Your task to perform on an android device: turn off javascript in the chrome app Image 0: 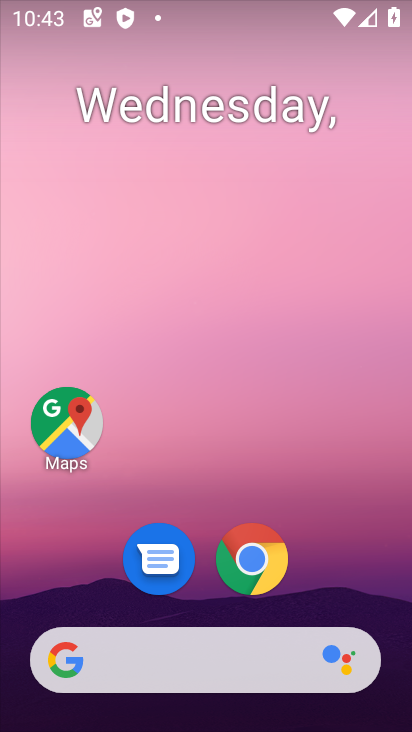
Step 0: click (251, 557)
Your task to perform on an android device: turn off javascript in the chrome app Image 1: 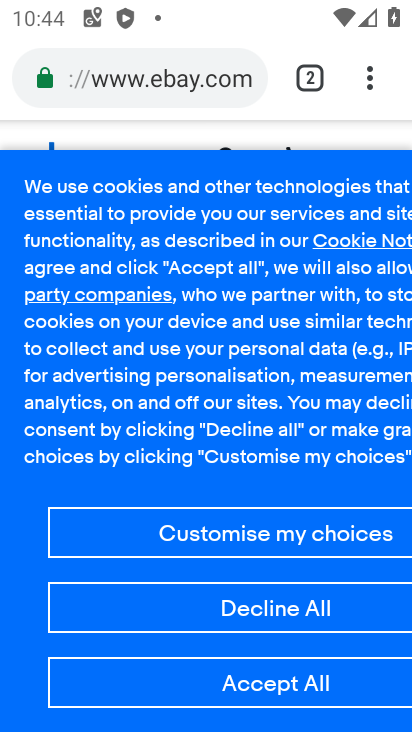
Step 1: click (370, 76)
Your task to perform on an android device: turn off javascript in the chrome app Image 2: 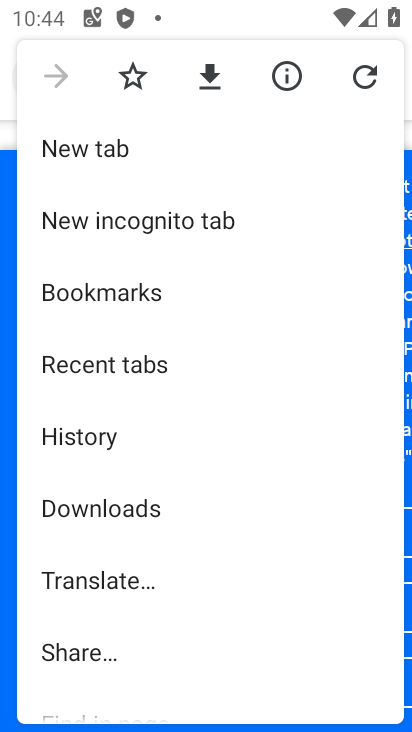
Step 2: drag from (123, 620) to (167, 530)
Your task to perform on an android device: turn off javascript in the chrome app Image 3: 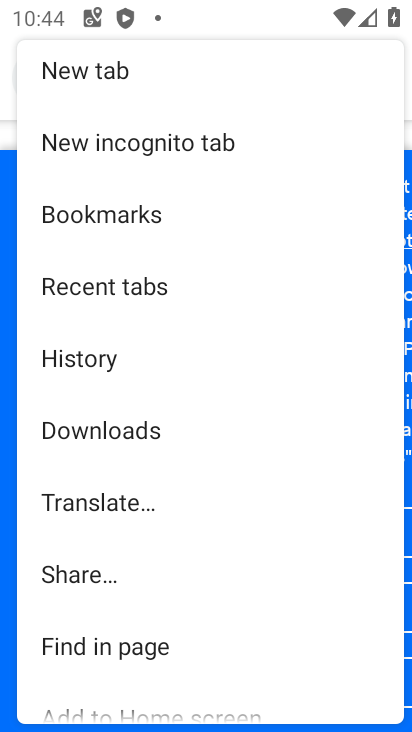
Step 3: drag from (105, 612) to (156, 539)
Your task to perform on an android device: turn off javascript in the chrome app Image 4: 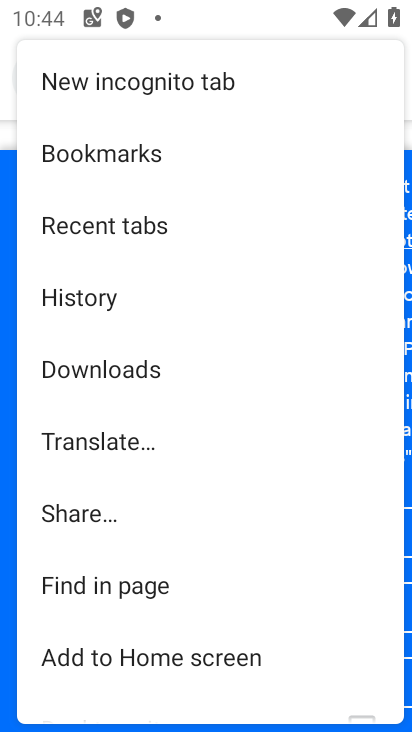
Step 4: drag from (120, 623) to (149, 547)
Your task to perform on an android device: turn off javascript in the chrome app Image 5: 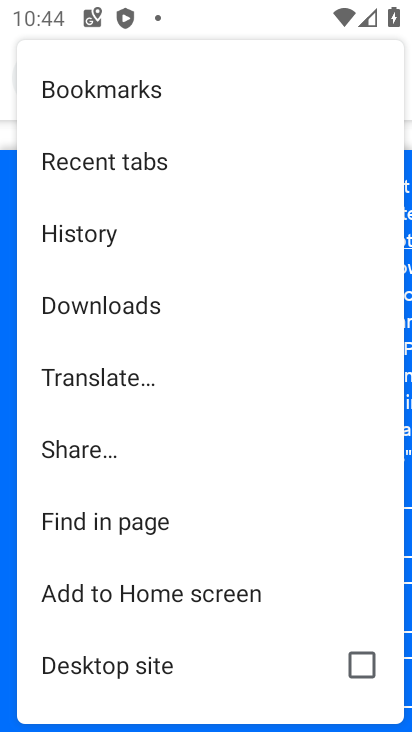
Step 5: drag from (111, 644) to (167, 534)
Your task to perform on an android device: turn off javascript in the chrome app Image 6: 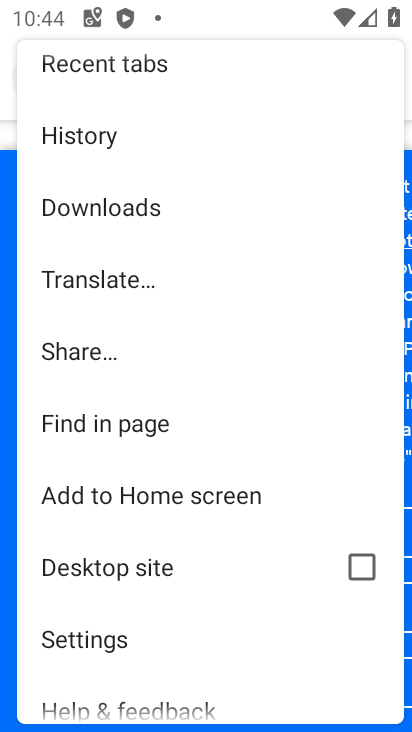
Step 6: drag from (90, 618) to (164, 496)
Your task to perform on an android device: turn off javascript in the chrome app Image 7: 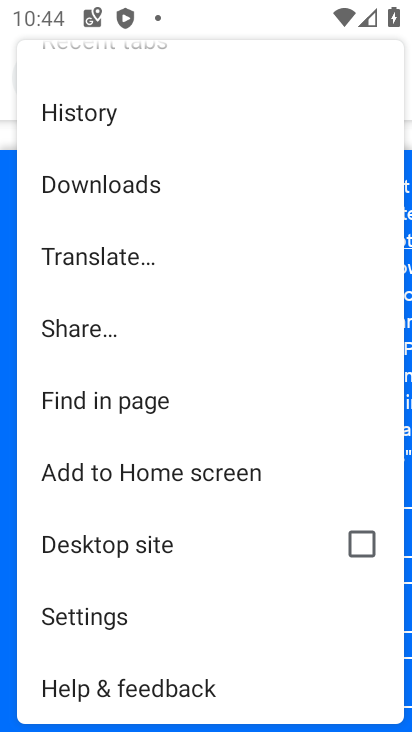
Step 7: click (91, 620)
Your task to perform on an android device: turn off javascript in the chrome app Image 8: 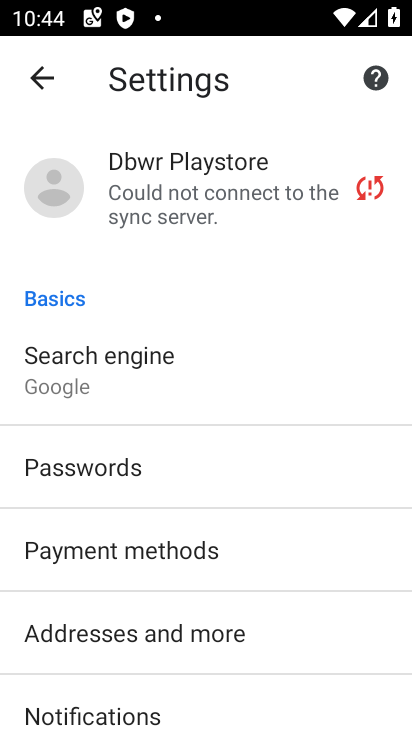
Step 8: drag from (125, 524) to (157, 460)
Your task to perform on an android device: turn off javascript in the chrome app Image 9: 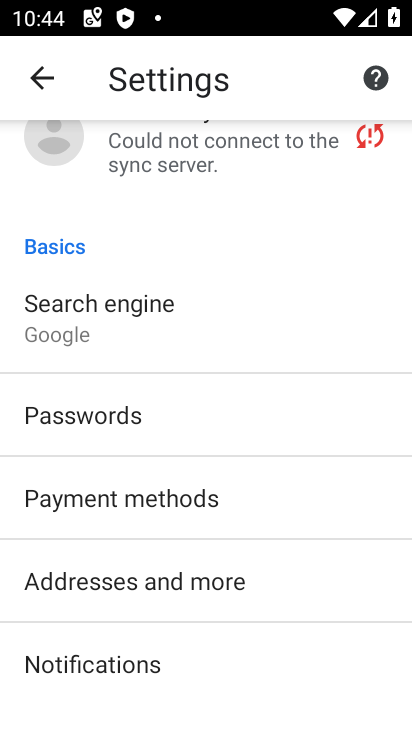
Step 9: drag from (71, 561) to (121, 493)
Your task to perform on an android device: turn off javascript in the chrome app Image 10: 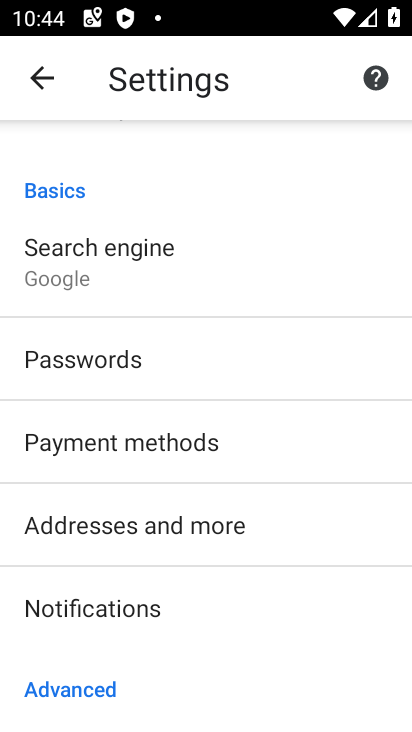
Step 10: drag from (101, 575) to (141, 498)
Your task to perform on an android device: turn off javascript in the chrome app Image 11: 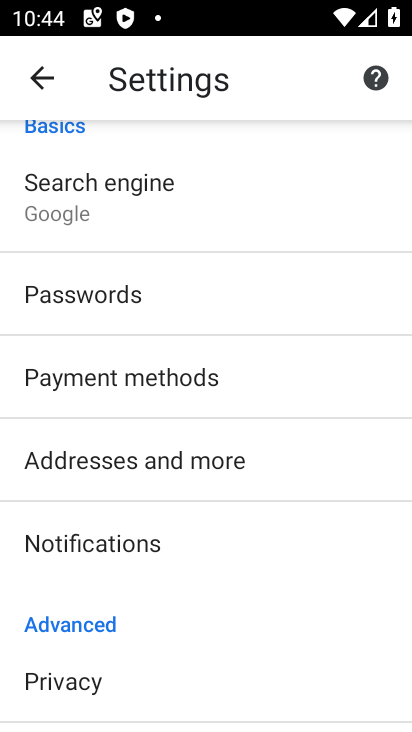
Step 11: drag from (89, 569) to (161, 488)
Your task to perform on an android device: turn off javascript in the chrome app Image 12: 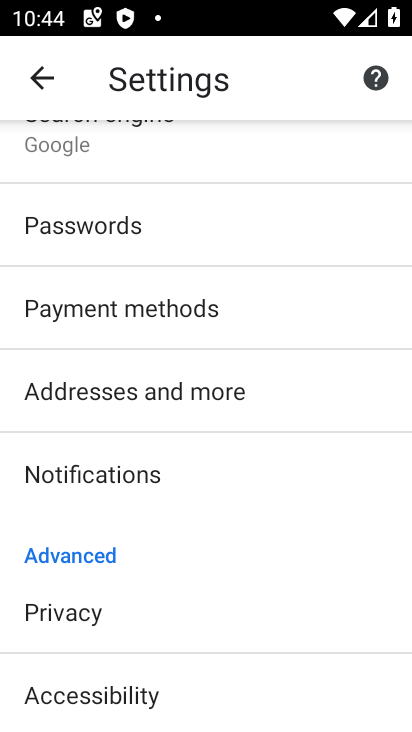
Step 12: drag from (116, 619) to (166, 521)
Your task to perform on an android device: turn off javascript in the chrome app Image 13: 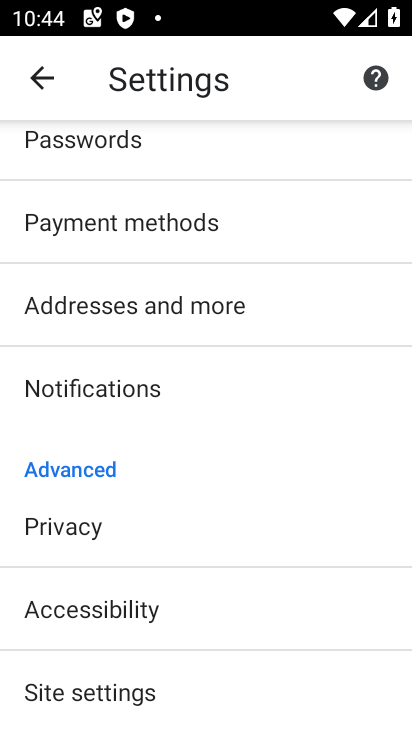
Step 13: drag from (123, 641) to (187, 527)
Your task to perform on an android device: turn off javascript in the chrome app Image 14: 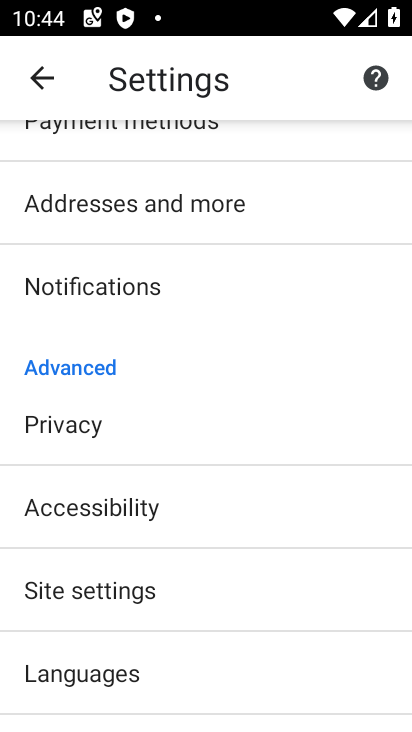
Step 14: click (141, 586)
Your task to perform on an android device: turn off javascript in the chrome app Image 15: 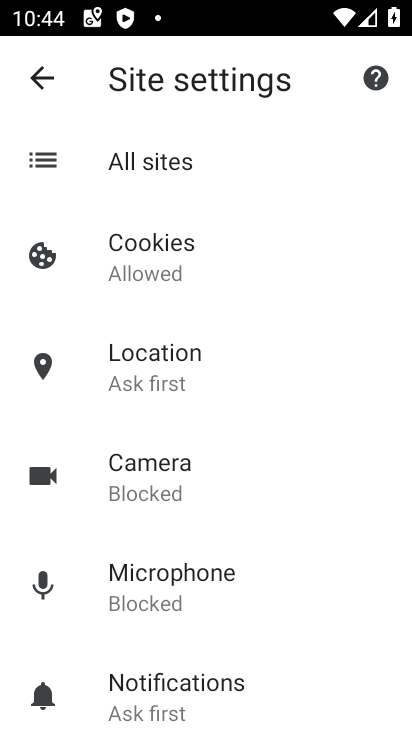
Step 15: drag from (184, 602) to (218, 515)
Your task to perform on an android device: turn off javascript in the chrome app Image 16: 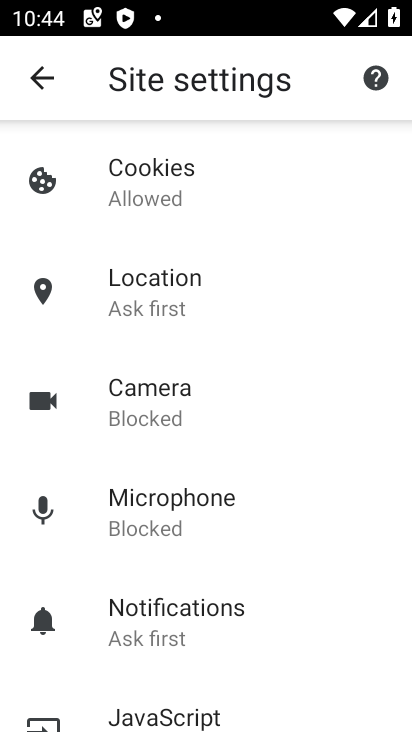
Step 16: drag from (180, 633) to (215, 524)
Your task to perform on an android device: turn off javascript in the chrome app Image 17: 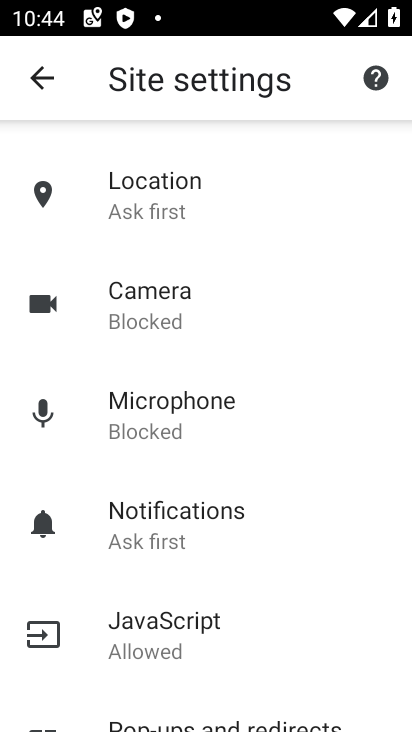
Step 17: click (172, 618)
Your task to perform on an android device: turn off javascript in the chrome app Image 18: 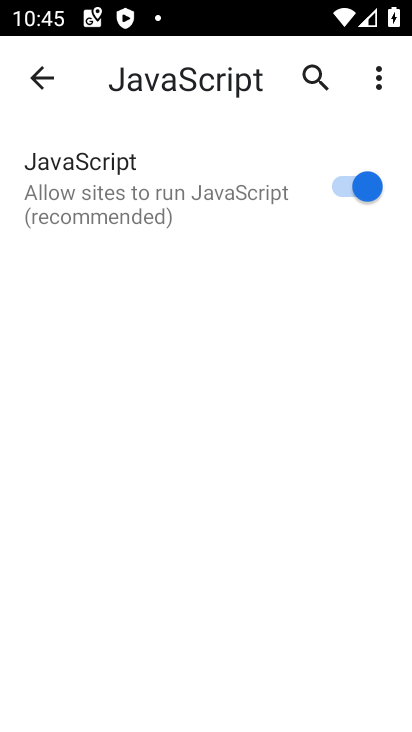
Step 18: click (343, 186)
Your task to perform on an android device: turn off javascript in the chrome app Image 19: 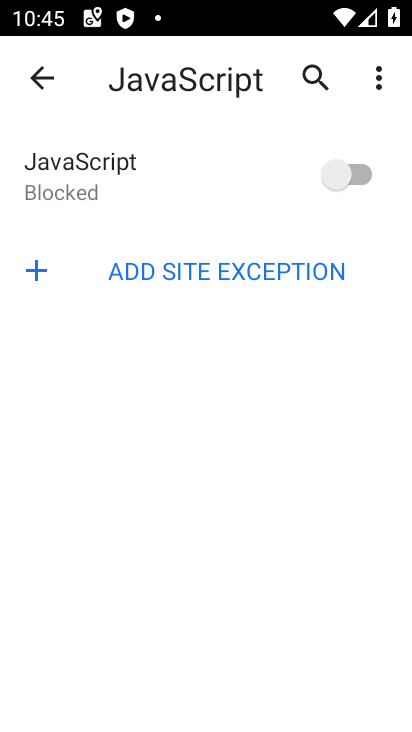
Step 19: task complete